Your task to perform on an android device: Go to internet settings Image 0: 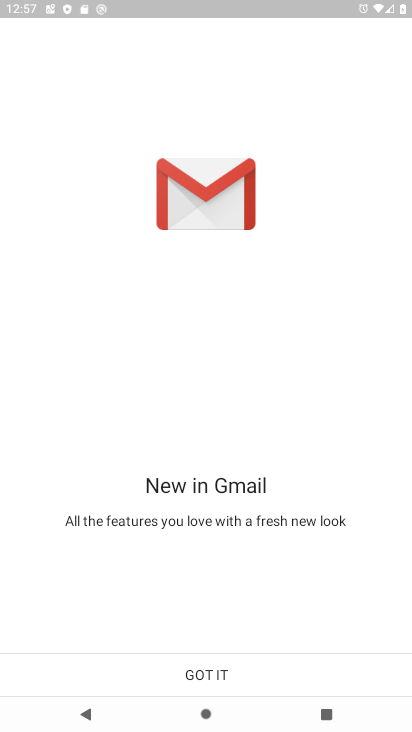
Step 0: press home button
Your task to perform on an android device: Go to internet settings Image 1: 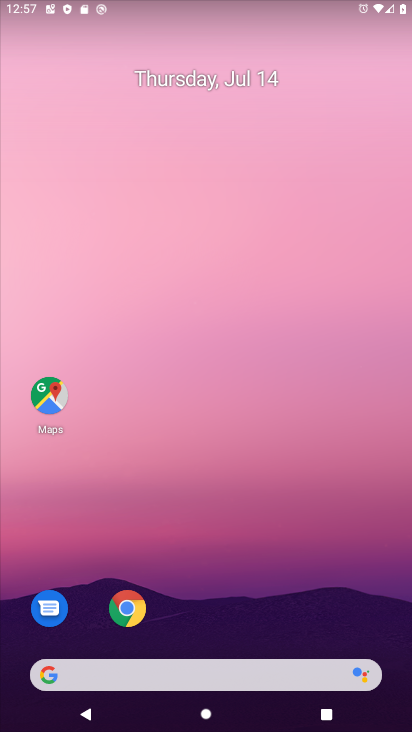
Step 1: drag from (206, 673) to (259, 157)
Your task to perform on an android device: Go to internet settings Image 2: 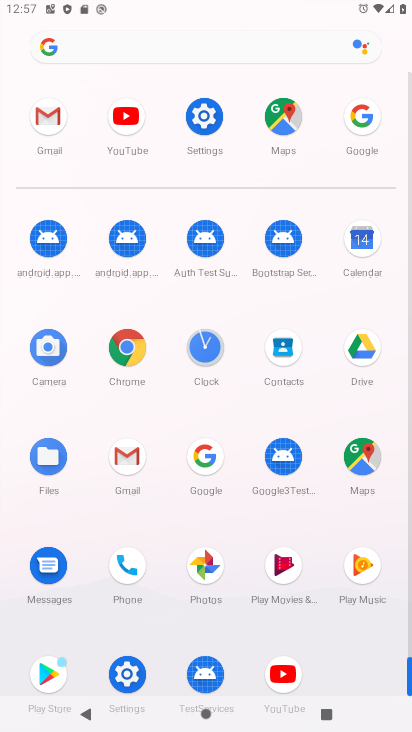
Step 2: click (205, 116)
Your task to perform on an android device: Go to internet settings Image 3: 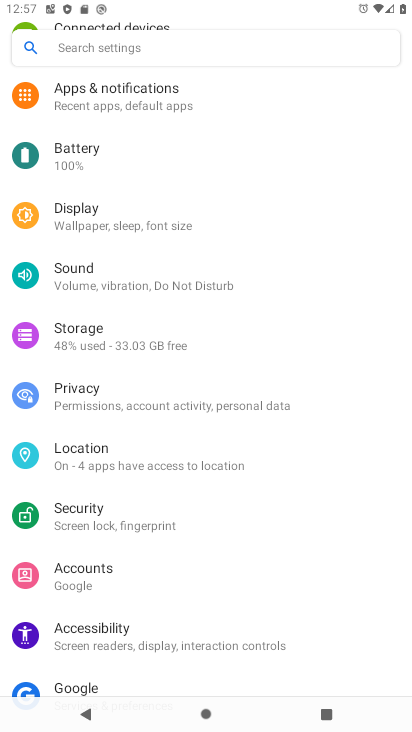
Step 3: drag from (128, 190) to (144, 391)
Your task to perform on an android device: Go to internet settings Image 4: 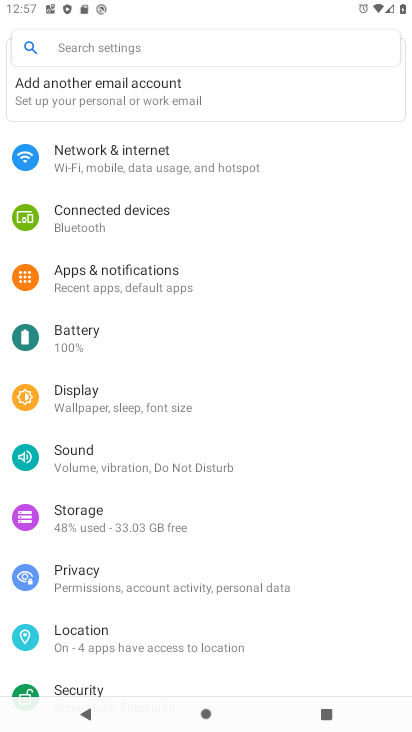
Step 4: click (128, 167)
Your task to perform on an android device: Go to internet settings Image 5: 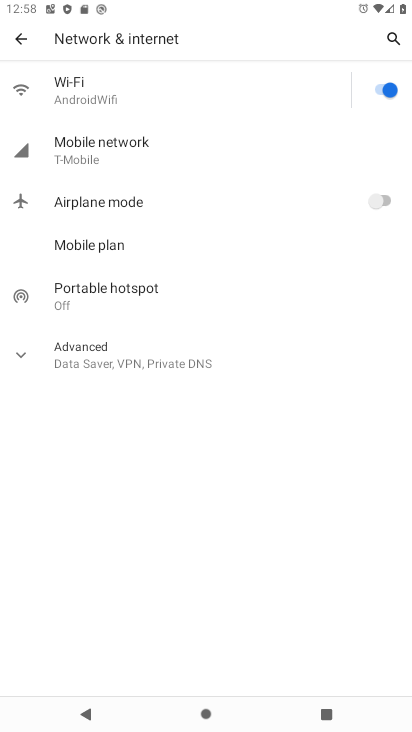
Step 5: task complete